Your task to perform on an android device: set an alarm Image 0: 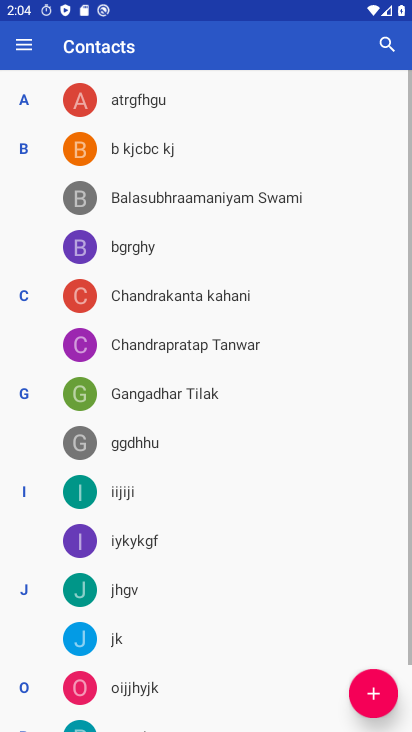
Step 0: click (31, 412)
Your task to perform on an android device: set an alarm Image 1: 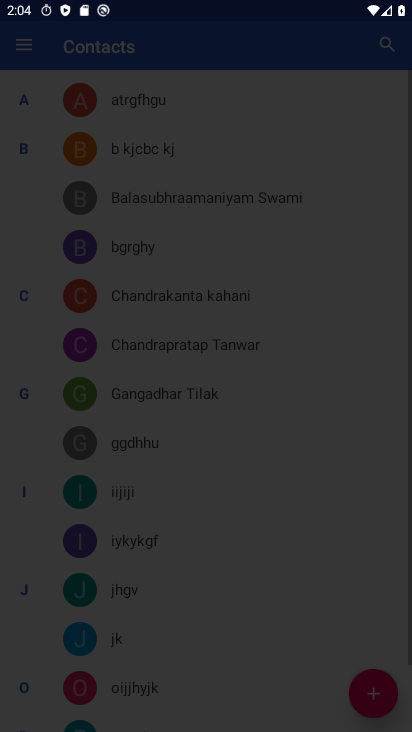
Step 1: press home button
Your task to perform on an android device: set an alarm Image 2: 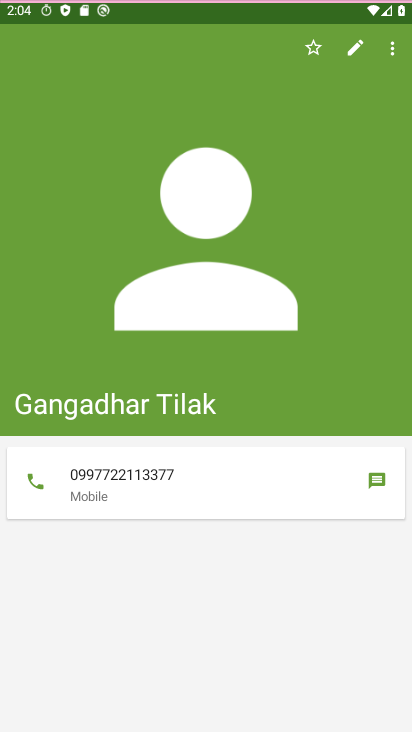
Step 2: press home button
Your task to perform on an android device: set an alarm Image 3: 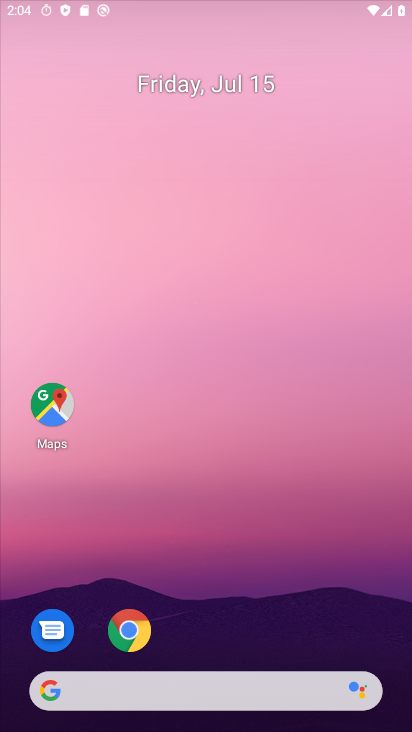
Step 3: press home button
Your task to perform on an android device: set an alarm Image 4: 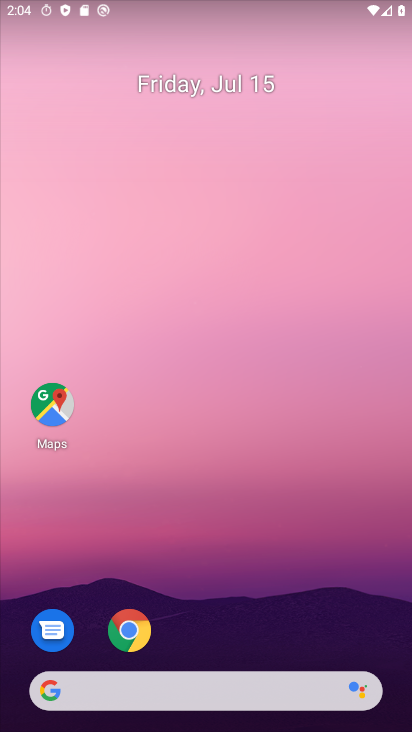
Step 4: drag from (206, 621) to (179, 109)
Your task to perform on an android device: set an alarm Image 5: 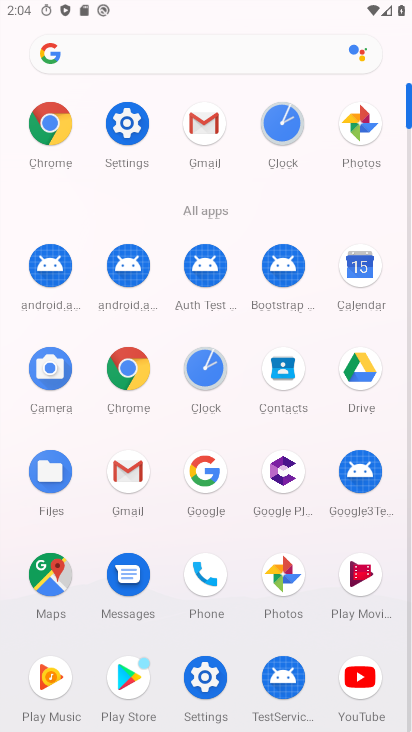
Step 5: click (272, 148)
Your task to perform on an android device: set an alarm Image 6: 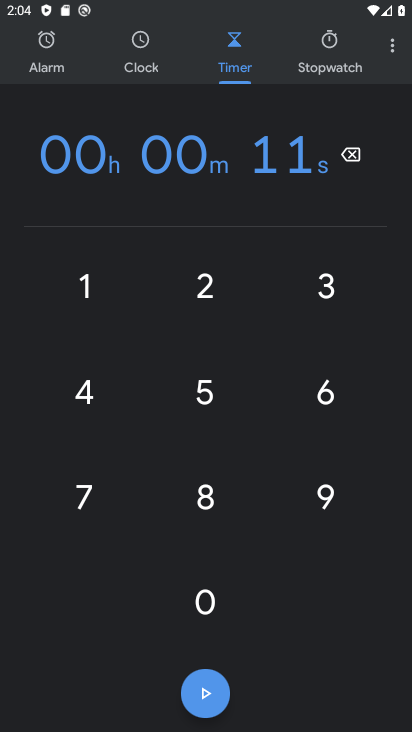
Step 6: click (42, 51)
Your task to perform on an android device: set an alarm Image 7: 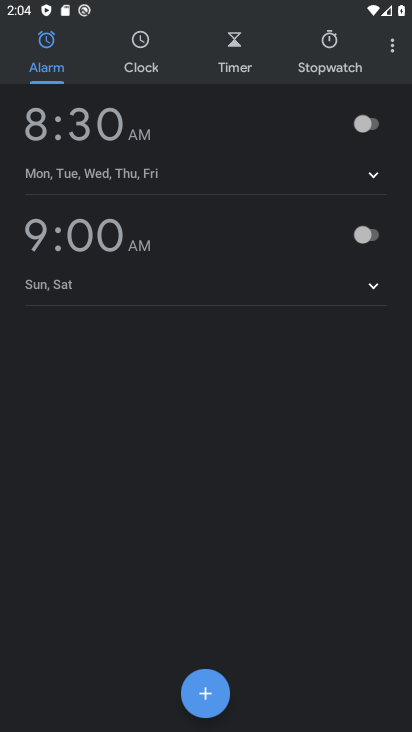
Step 7: click (377, 129)
Your task to perform on an android device: set an alarm Image 8: 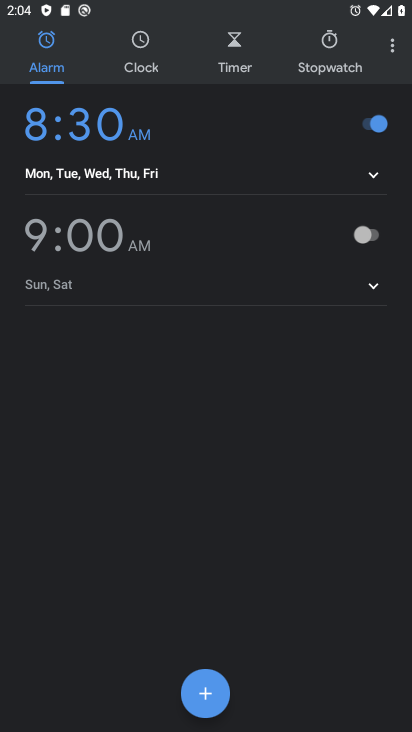
Step 8: task complete